Your task to perform on an android device: set default search engine in the chrome app Image 0: 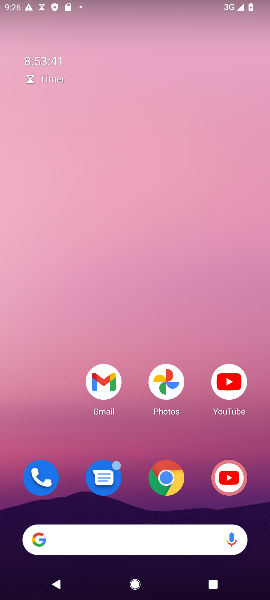
Step 0: drag from (193, 359) to (138, 27)
Your task to perform on an android device: set default search engine in the chrome app Image 1: 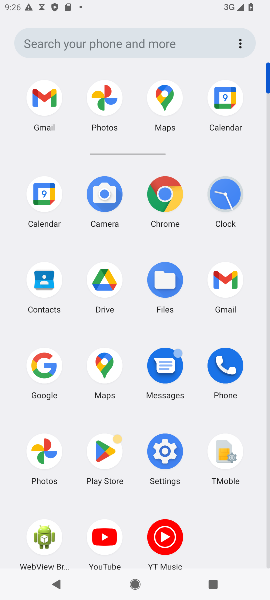
Step 1: click (159, 204)
Your task to perform on an android device: set default search engine in the chrome app Image 2: 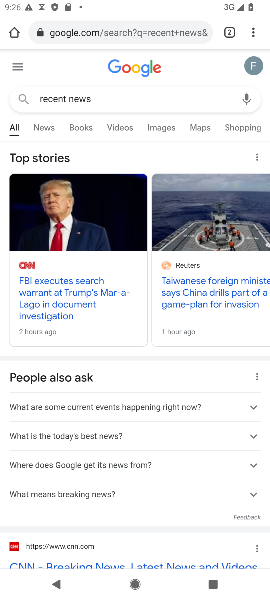
Step 2: click (252, 37)
Your task to perform on an android device: set default search engine in the chrome app Image 3: 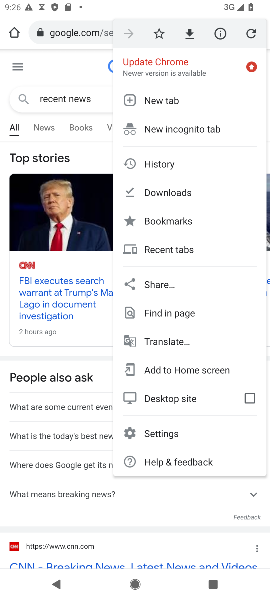
Step 3: click (169, 435)
Your task to perform on an android device: set default search engine in the chrome app Image 4: 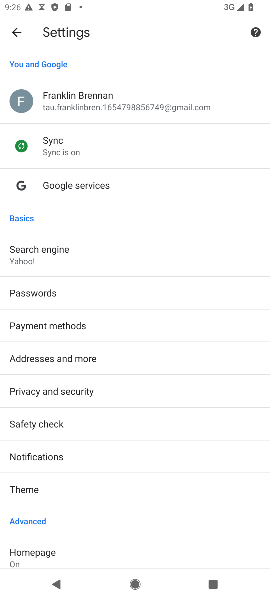
Step 4: click (130, 256)
Your task to perform on an android device: set default search engine in the chrome app Image 5: 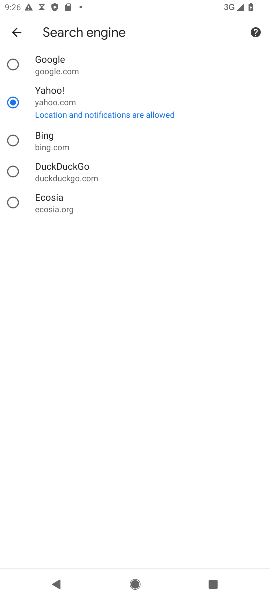
Step 5: click (77, 69)
Your task to perform on an android device: set default search engine in the chrome app Image 6: 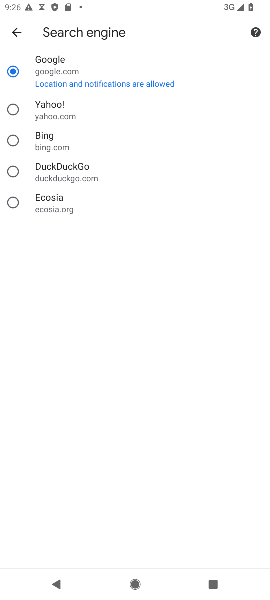
Step 6: task complete